Your task to perform on an android device: Open Yahoo.com Image 0: 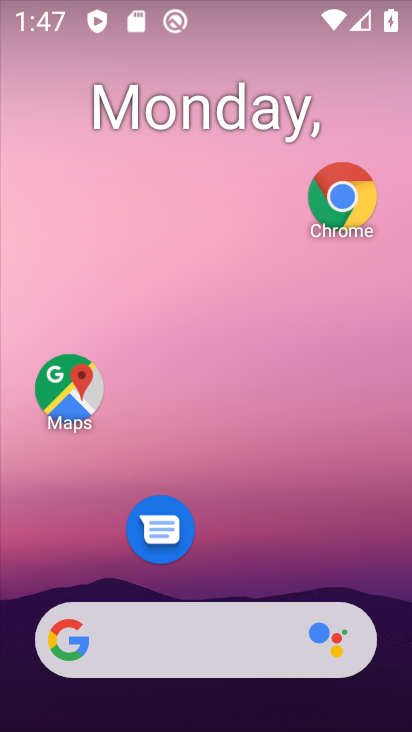
Step 0: click (329, 205)
Your task to perform on an android device: Open Yahoo.com Image 1: 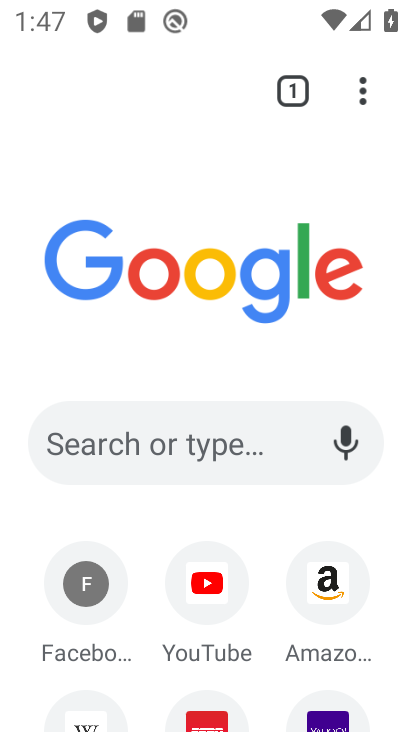
Step 1: click (322, 716)
Your task to perform on an android device: Open Yahoo.com Image 2: 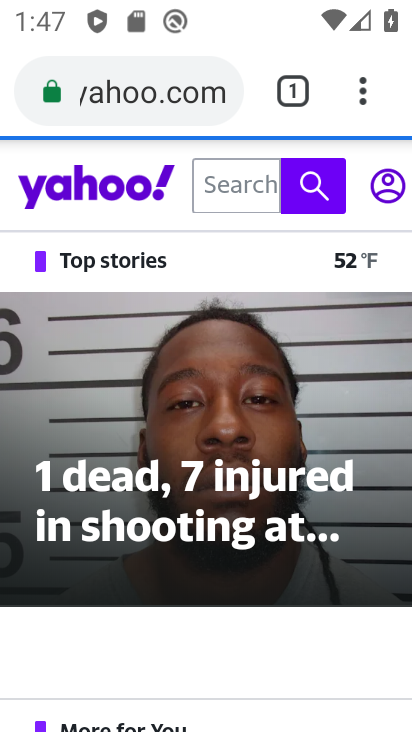
Step 2: task complete